Your task to perform on an android device: Show me recent news Image 0: 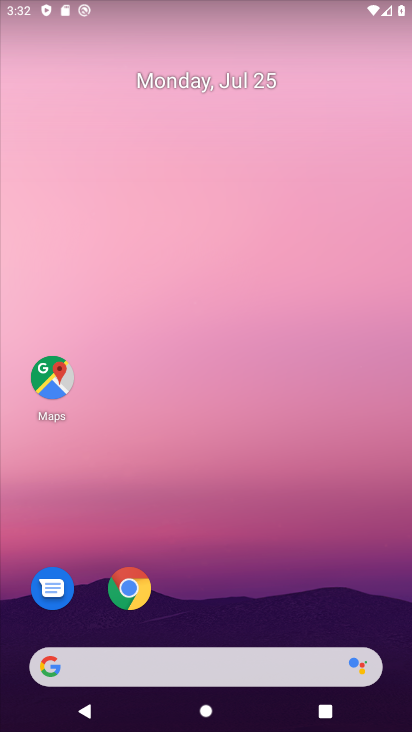
Step 0: drag from (313, 668) to (330, 218)
Your task to perform on an android device: Show me recent news Image 1: 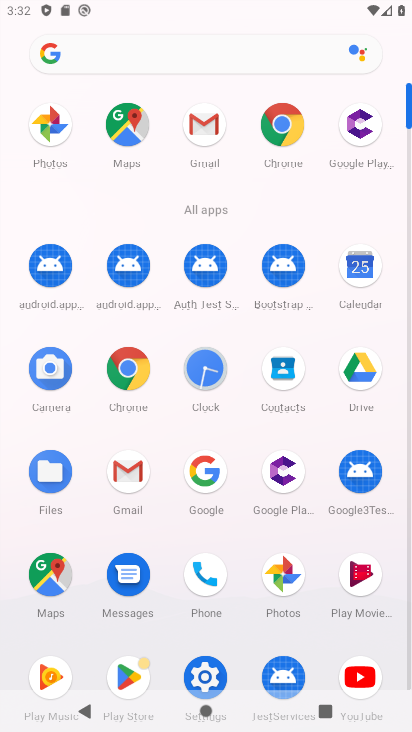
Step 1: click (295, 133)
Your task to perform on an android device: Show me recent news Image 2: 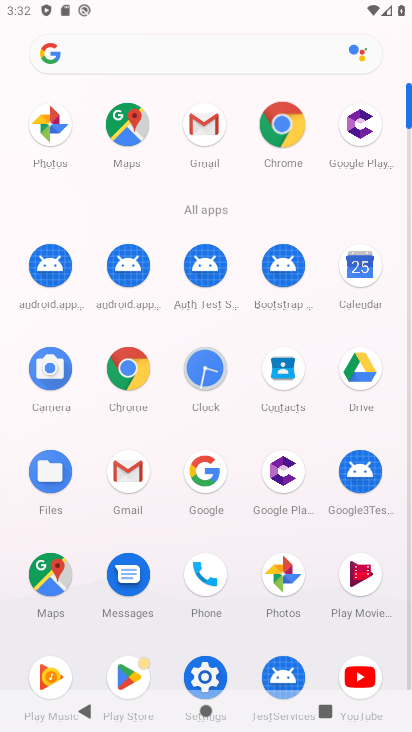
Step 2: click (293, 131)
Your task to perform on an android device: Show me recent news Image 3: 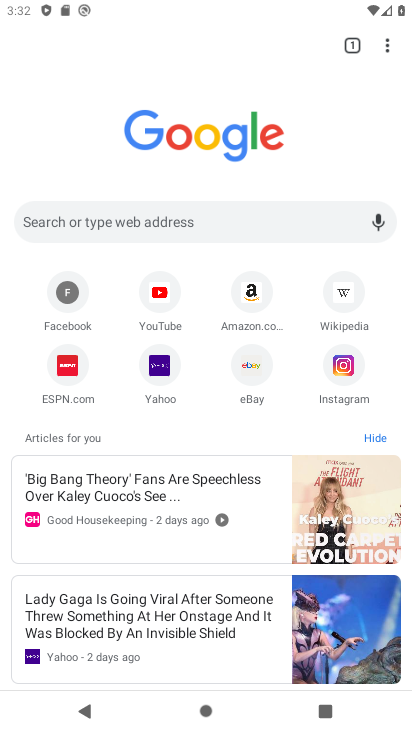
Step 3: task complete